Your task to perform on an android device: Open calendar and show me the fourth week of next month Image 0: 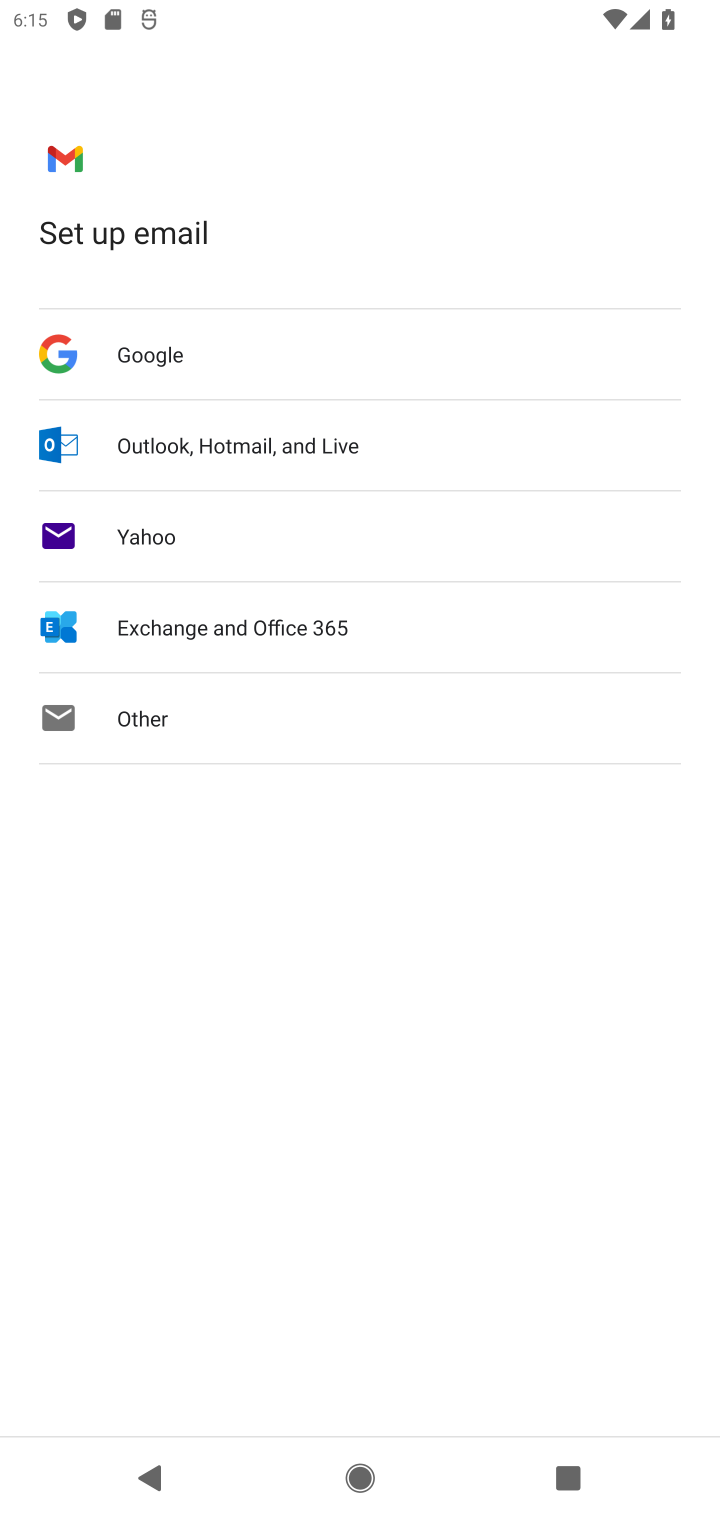
Step 0: press home button
Your task to perform on an android device: Open calendar and show me the fourth week of next month Image 1: 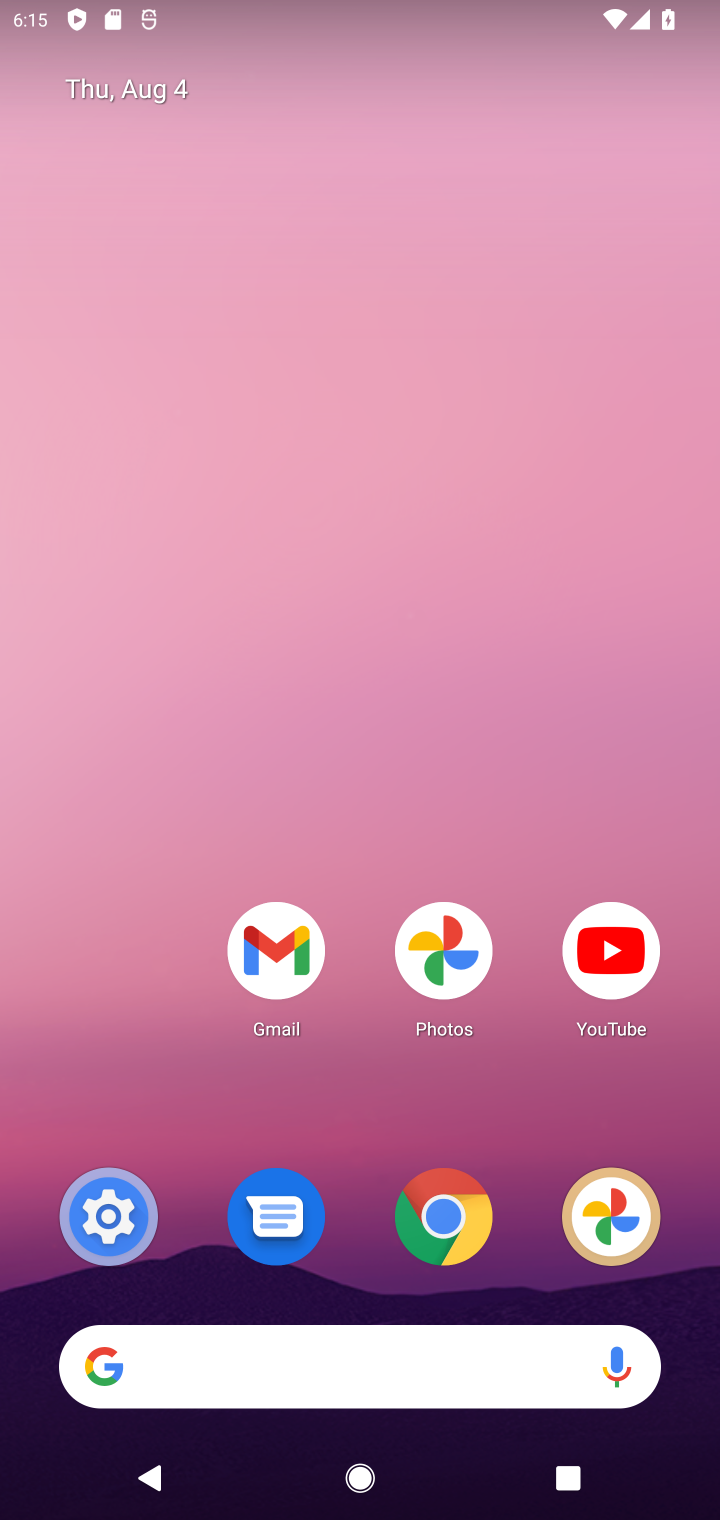
Step 1: drag from (515, 898) to (413, 0)
Your task to perform on an android device: Open calendar and show me the fourth week of next month Image 2: 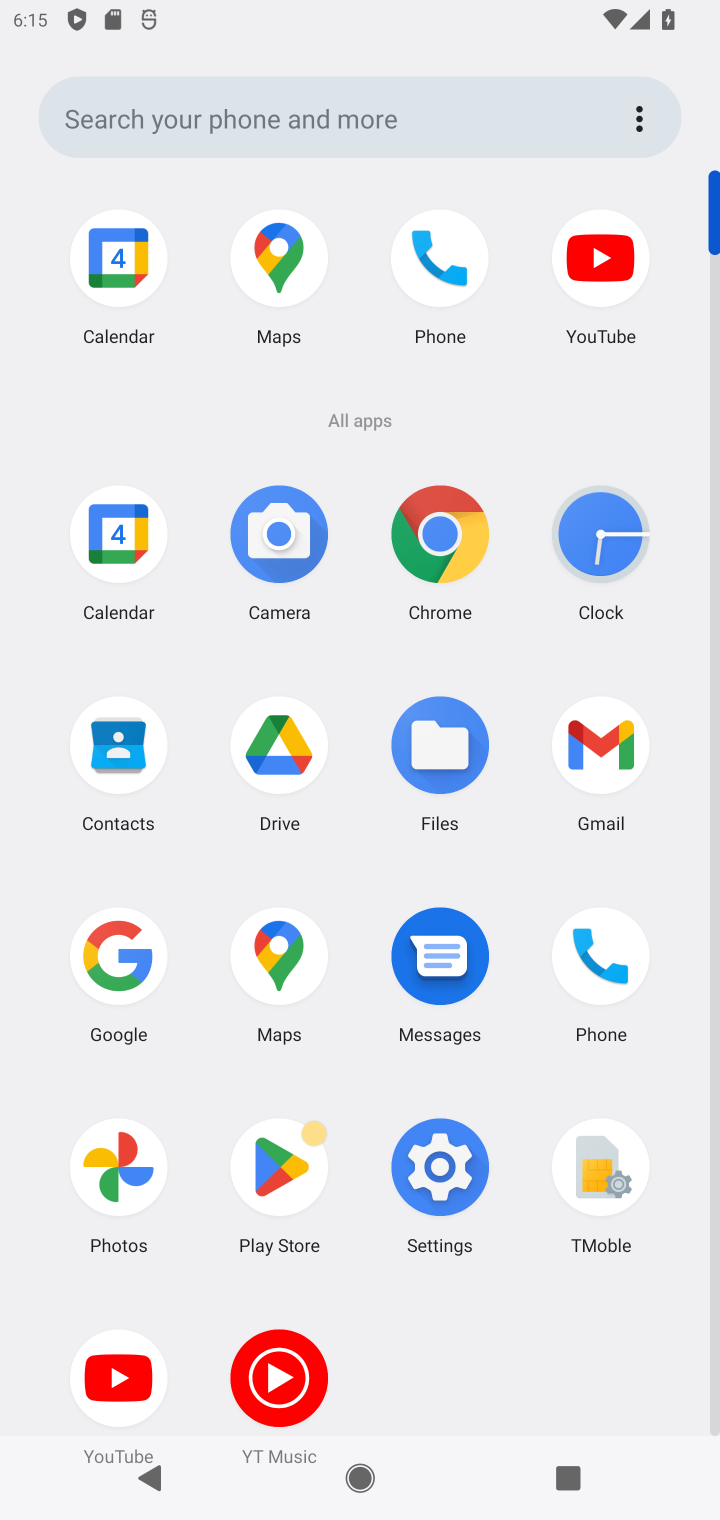
Step 2: click (143, 532)
Your task to perform on an android device: Open calendar and show me the fourth week of next month Image 3: 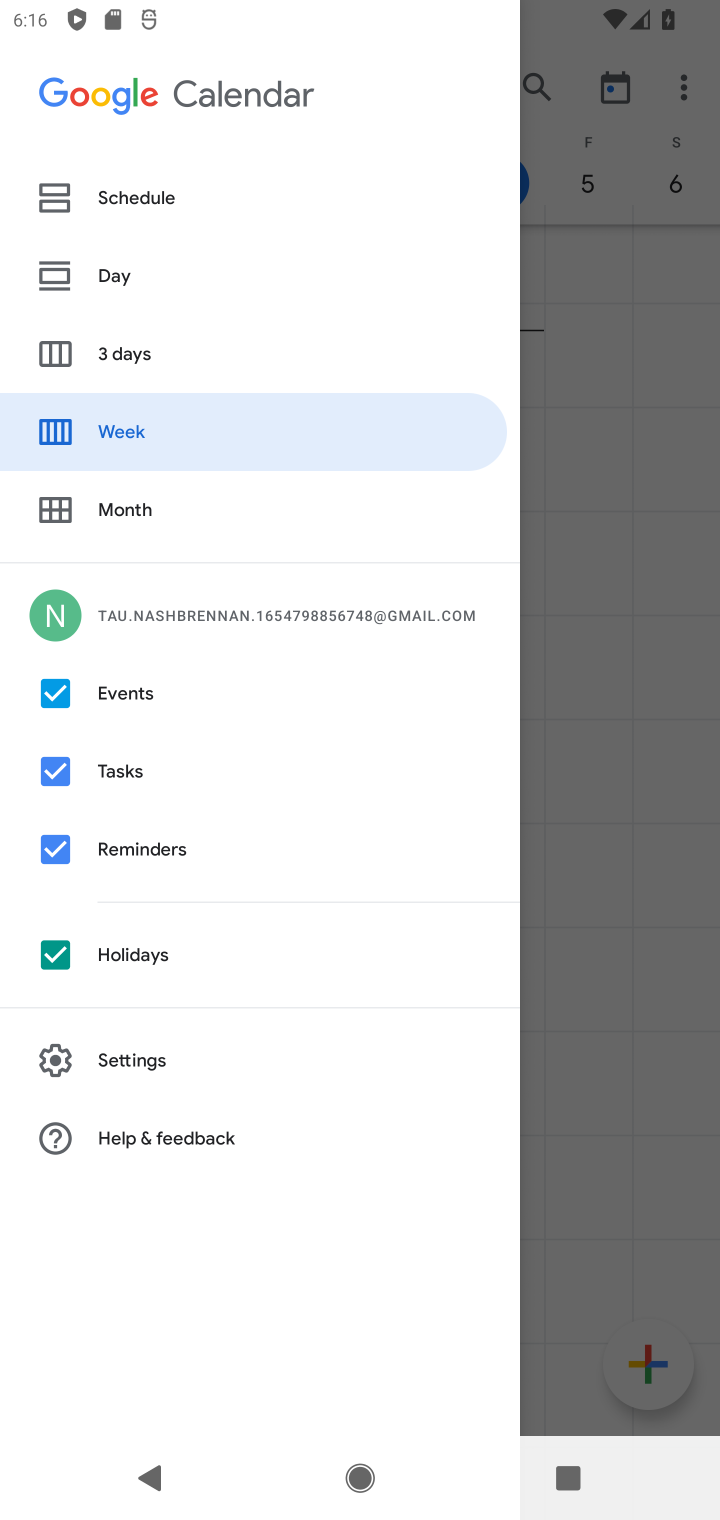
Step 3: click (581, 533)
Your task to perform on an android device: Open calendar and show me the fourth week of next month Image 4: 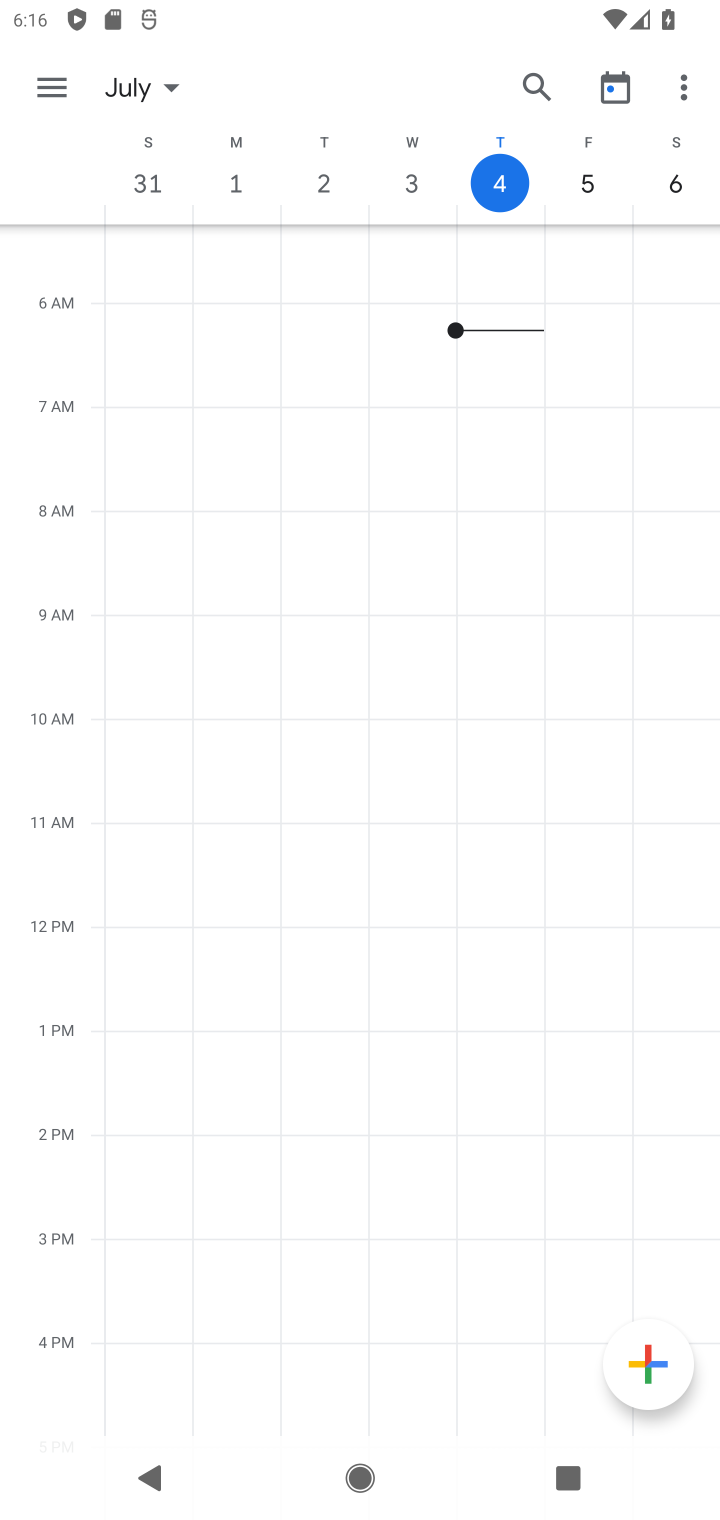
Step 4: click (145, 84)
Your task to perform on an android device: Open calendar and show me the fourth week of next month Image 5: 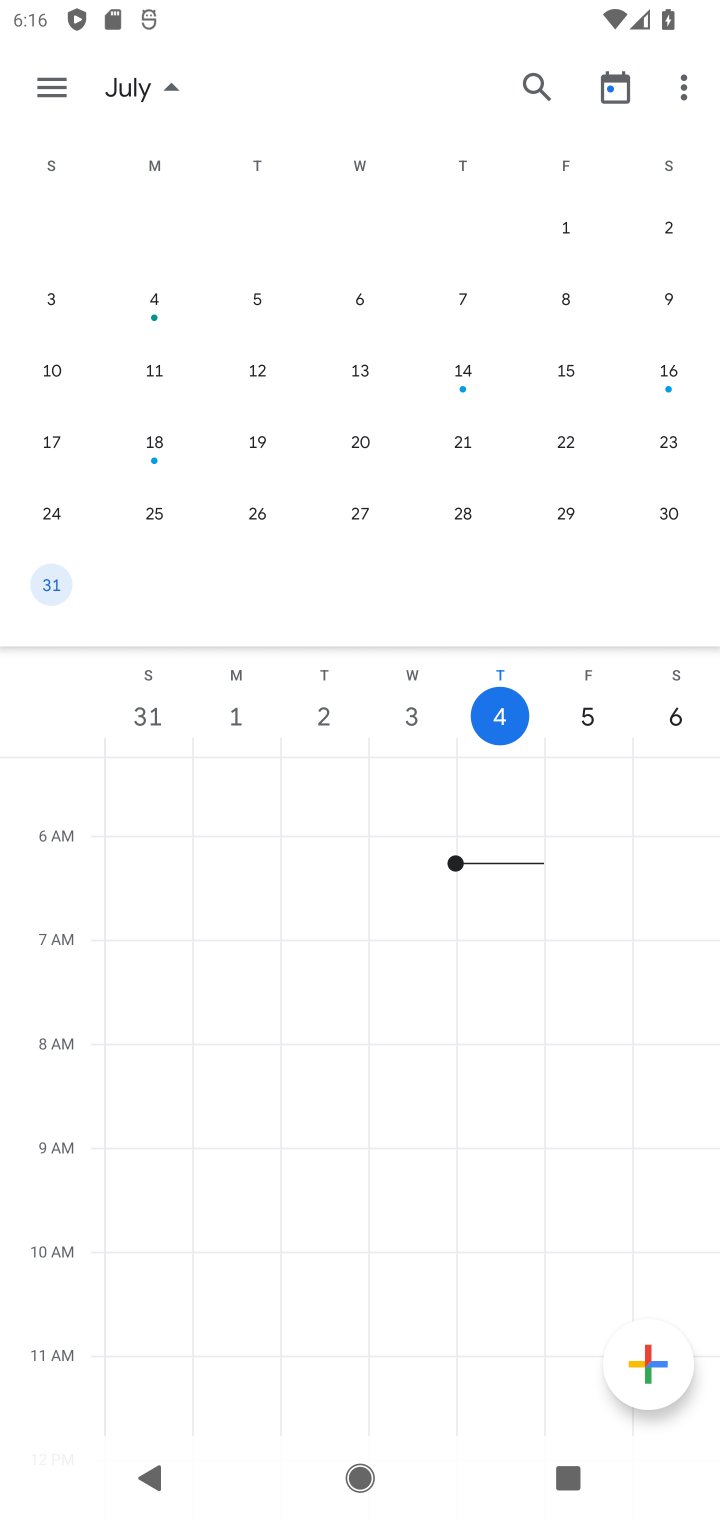
Step 5: drag from (590, 481) to (26, 391)
Your task to perform on an android device: Open calendar and show me the fourth week of next month Image 6: 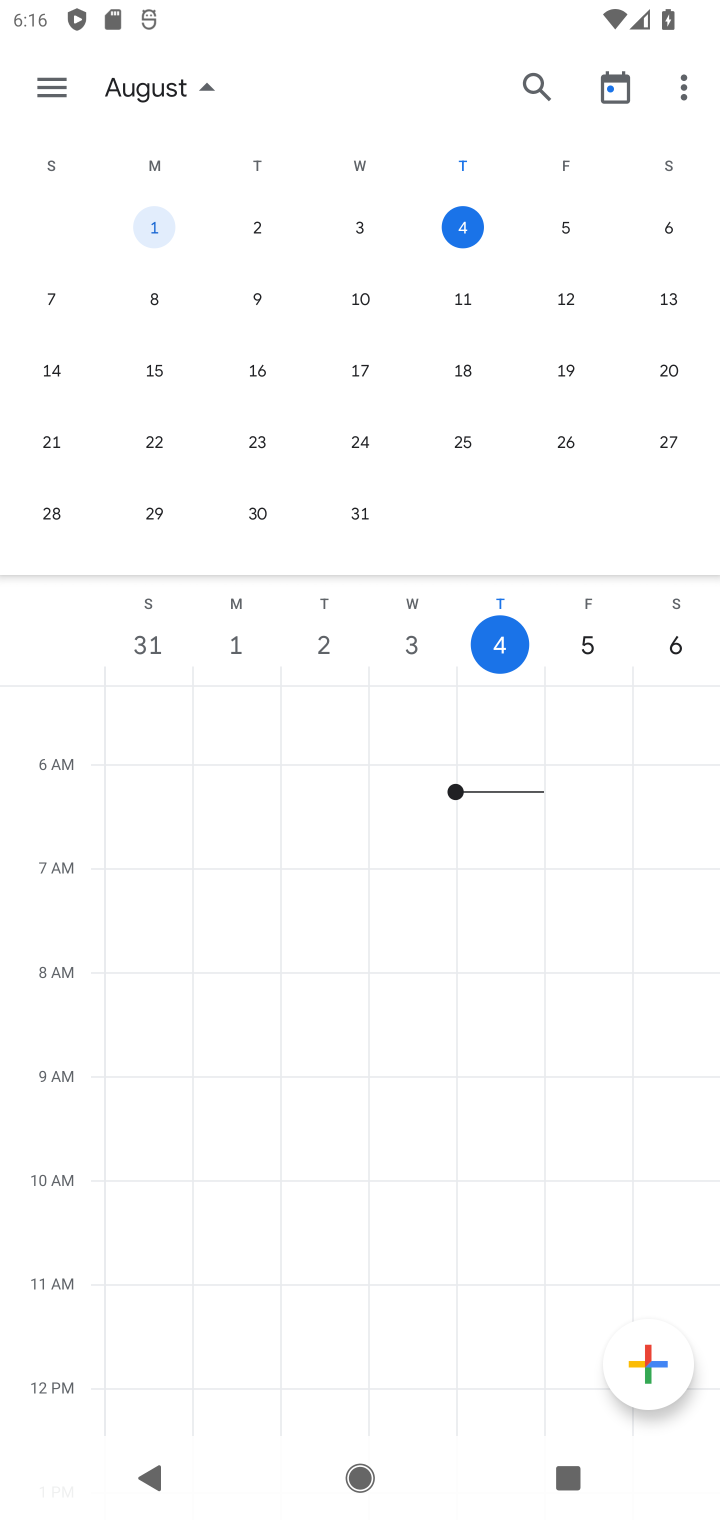
Step 6: drag from (670, 450) to (9, 335)
Your task to perform on an android device: Open calendar and show me the fourth week of next month Image 7: 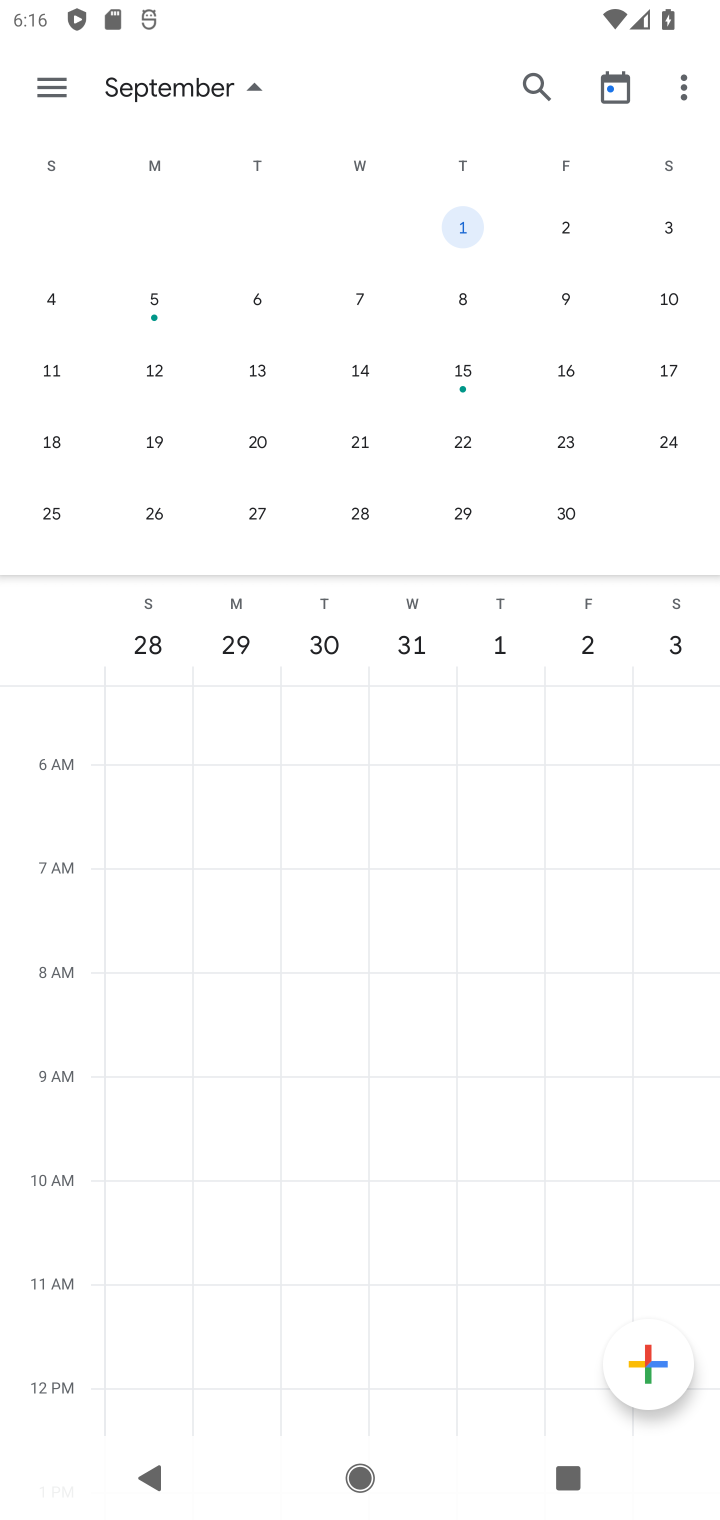
Step 7: click (254, 507)
Your task to perform on an android device: Open calendar and show me the fourth week of next month Image 8: 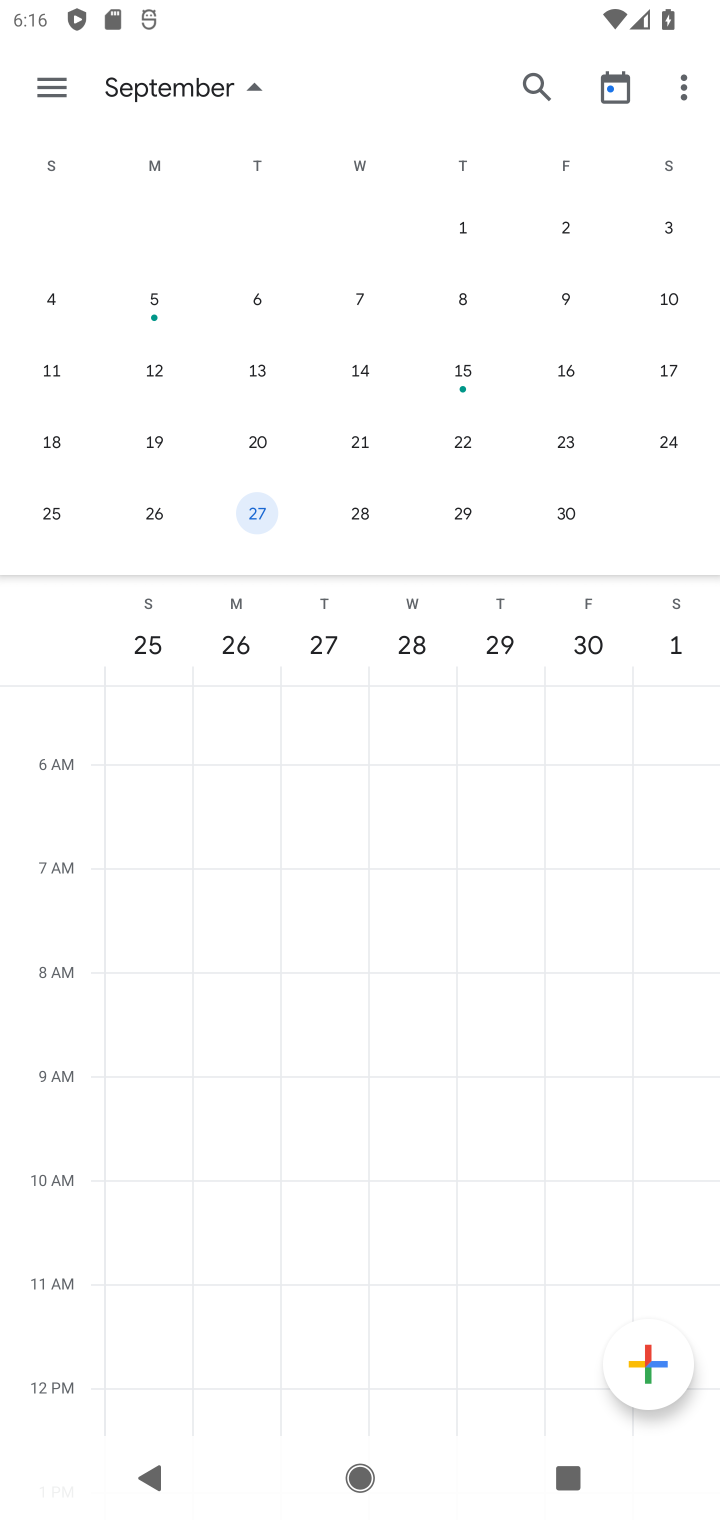
Step 8: task complete